Your task to perform on an android device: make emails show in primary in the gmail app Image 0: 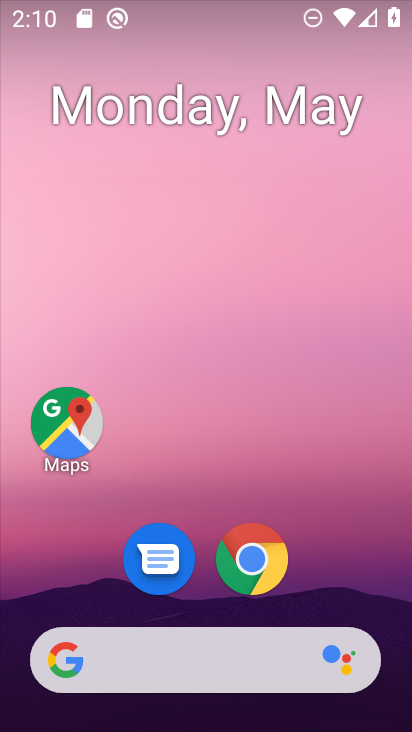
Step 0: drag from (377, 568) to (411, 0)
Your task to perform on an android device: make emails show in primary in the gmail app Image 1: 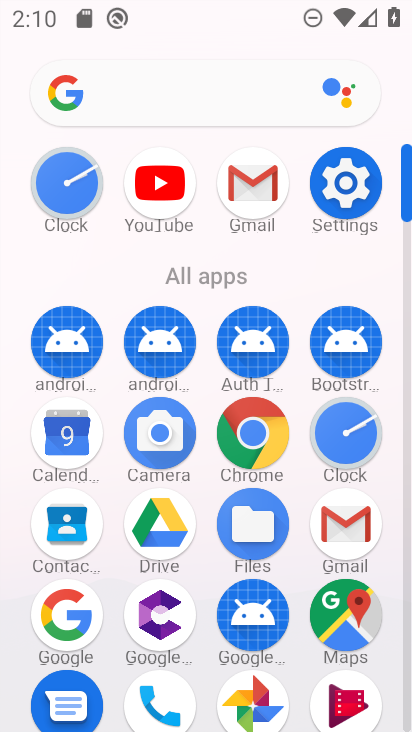
Step 1: click (251, 195)
Your task to perform on an android device: make emails show in primary in the gmail app Image 2: 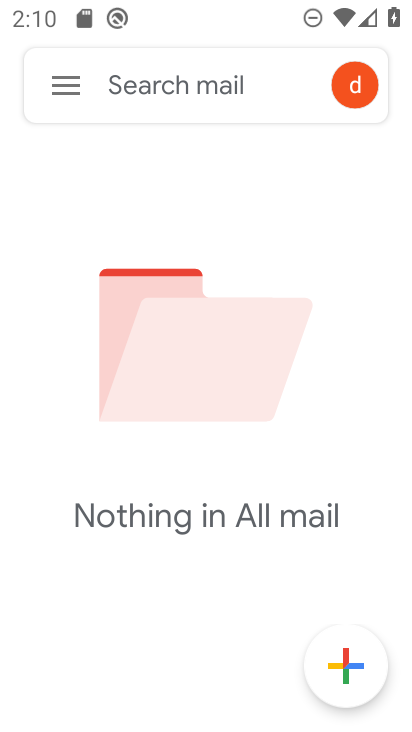
Step 2: click (57, 96)
Your task to perform on an android device: make emails show in primary in the gmail app Image 3: 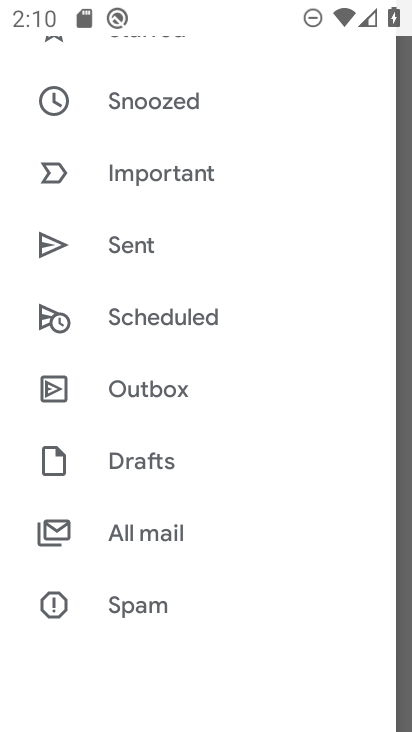
Step 3: drag from (267, 590) to (282, 90)
Your task to perform on an android device: make emails show in primary in the gmail app Image 4: 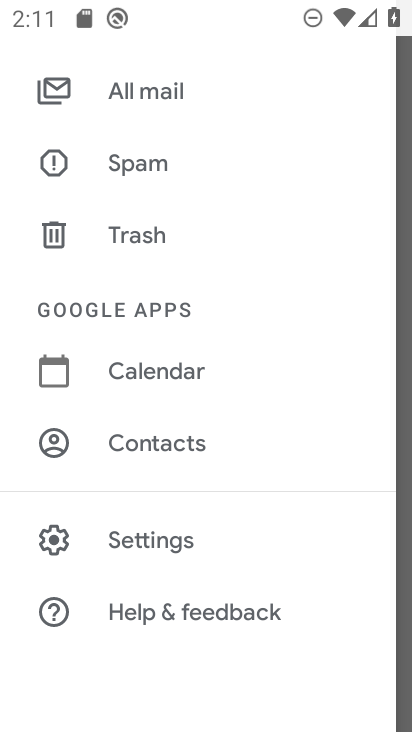
Step 4: click (143, 542)
Your task to perform on an android device: make emails show in primary in the gmail app Image 5: 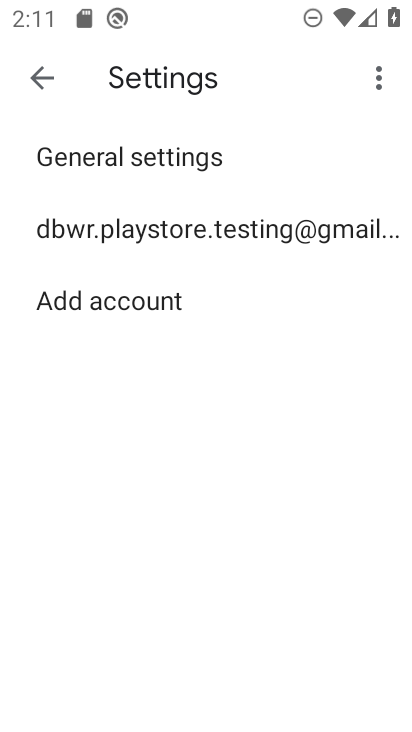
Step 5: click (138, 233)
Your task to perform on an android device: make emails show in primary in the gmail app Image 6: 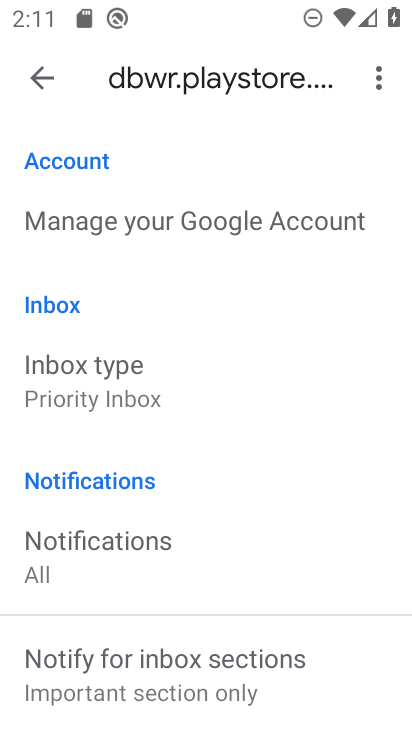
Step 6: task complete